Your task to perform on an android device: turn pop-ups off in chrome Image 0: 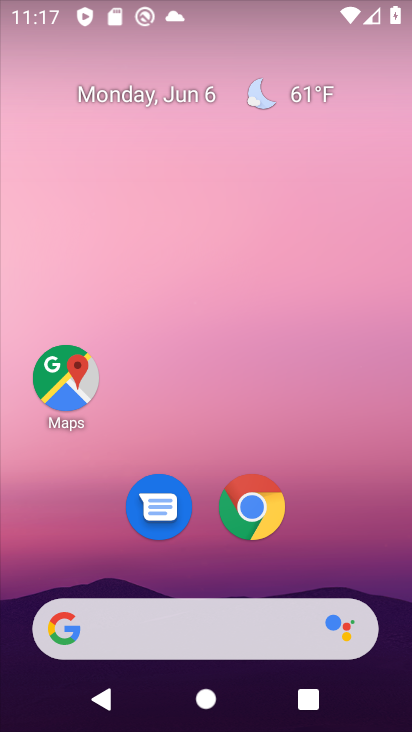
Step 0: click (260, 519)
Your task to perform on an android device: turn pop-ups off in chrome Image 1: 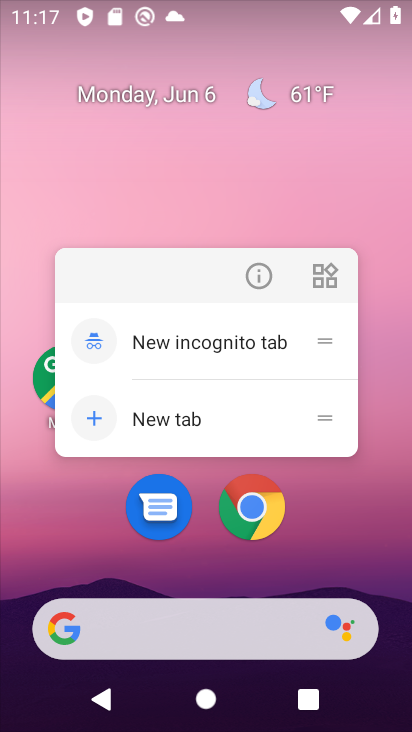
Step 1: click (249, 517)
Your task to perform on an android device: turn pop-ups off in chrome Image 2: 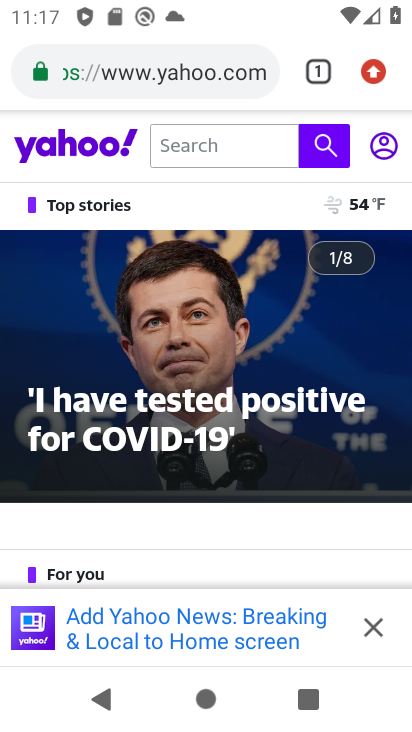
Step 2: click (375, 72)
Your task to perform on an android device: turn pop-ups off in chrome Image 3: 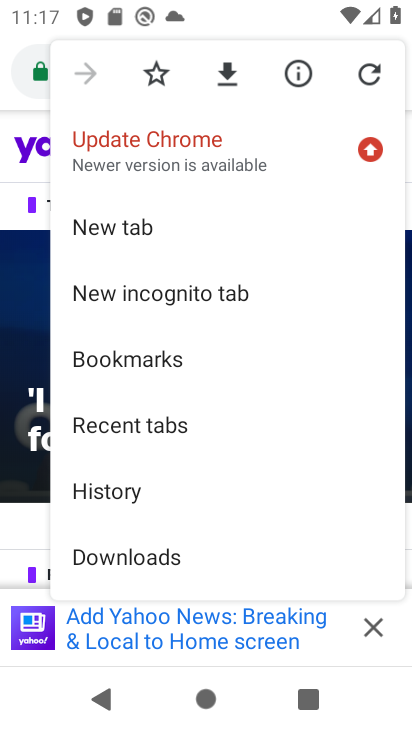
Step 3: drag from (284, 443) to (255, 183)
Your task to perform on an android device: turn pop-ups off in chrome Image 4: 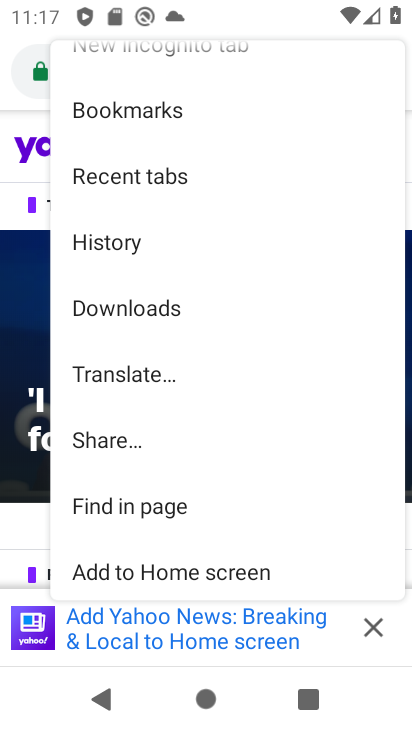
Step 4: drag from (247, 477) to (220, 80)
Your task to perform on an android device: turn pop-ups off in chrome Image 5: 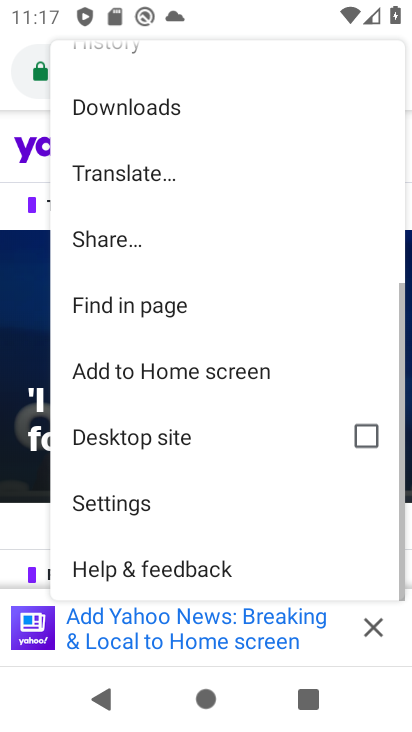
Step 5: click (138, 513)
Your task to perform on an android device: turn pop-ups off in chrome Image 6: 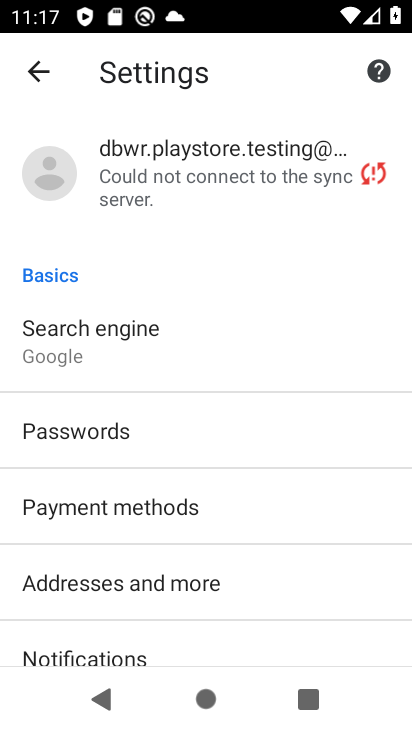
Step 6: drag from (231, 498) to (220, 188)
Your task to perform on an android device: turn pop-ups off in chrome Image 7: 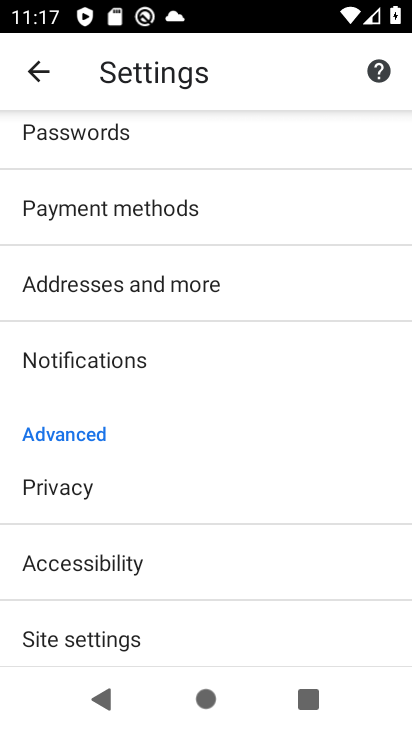
Step 7: click (92, 642)
Your task to perform on an android device: turn pop-ups off in chrome Image 8: 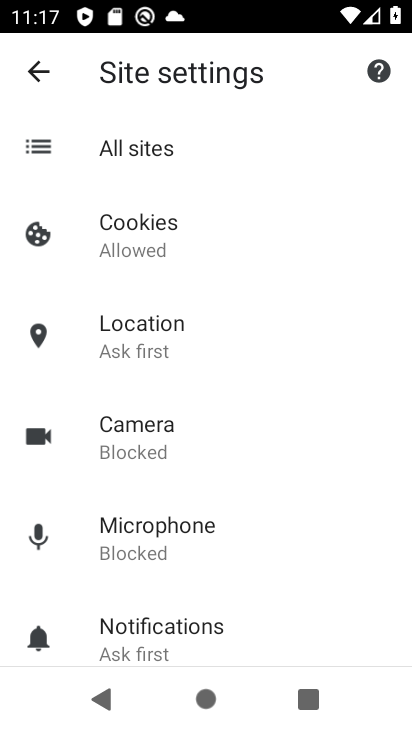
Step 8: drag from (209, 601) to (194, 270)
Your task to perform on an android device: turn pop-ups off in chrome Image 9: 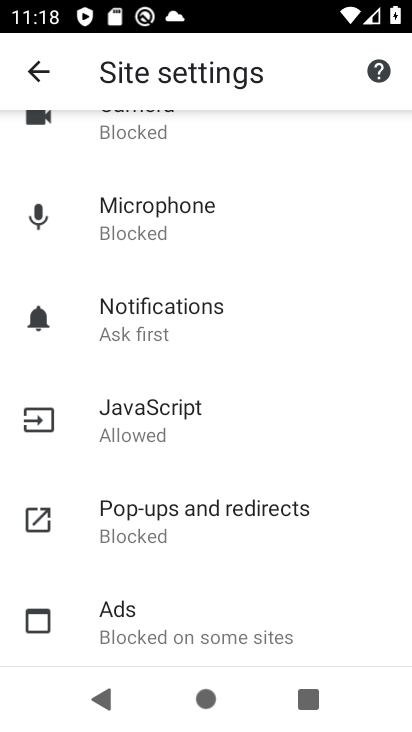
Step 9: click (197, 525)
Your task to perform on an android device: turn pop-ups off in chrome Image 10: 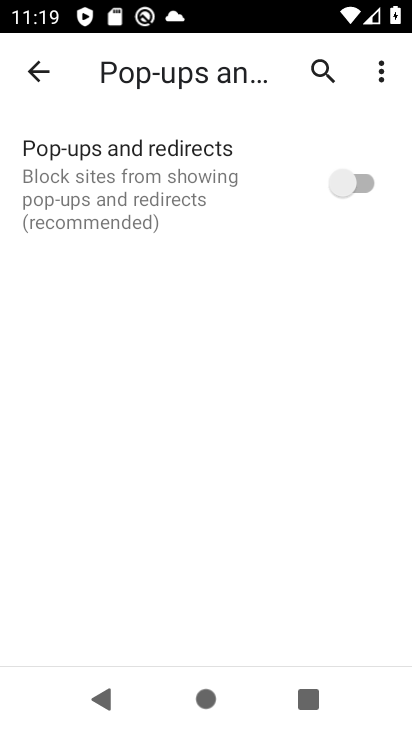
Step 10: task complete